Your task to perform on an android device: Open Chrome and go to settings Image 0: 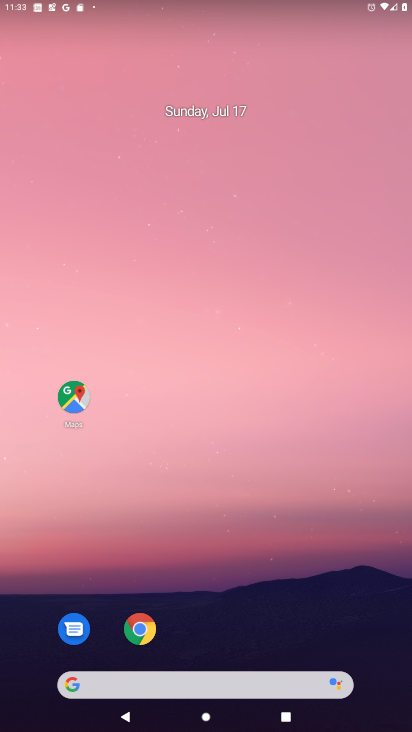
Step 0: click (141, 632)
Your task to perform on an android device: Open Chrome and go to settings Image 1: 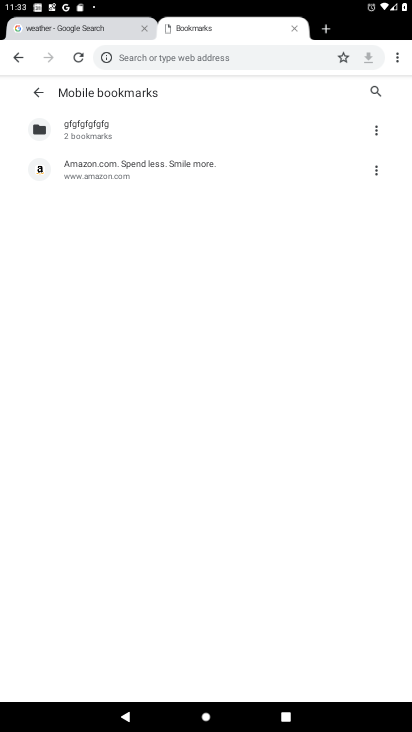
Step 1: click (398, 60)
Your task to perform on an android device: Open Chrome and go to settings Image 2: 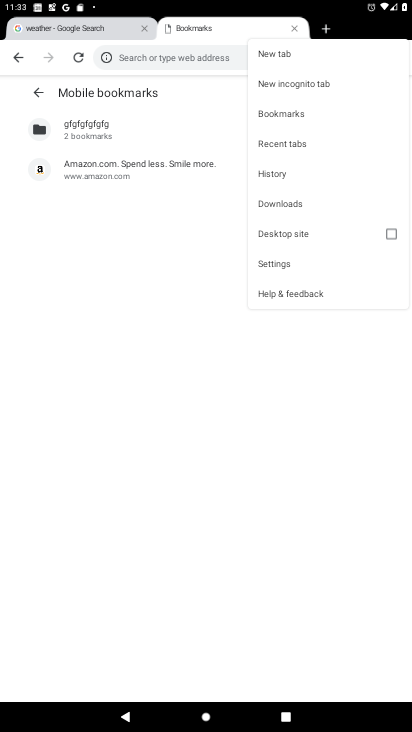
Step 2: click (287, 264)
Your task to perform on an android device: Open Chrome and go to settings Image 3: 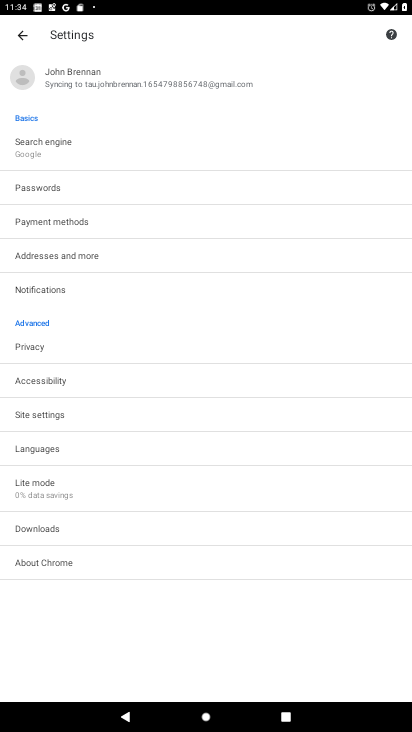
Step 3: task complete